Your task to perform on an android device: Open calendar and show me the fourth week of next month Image 0: 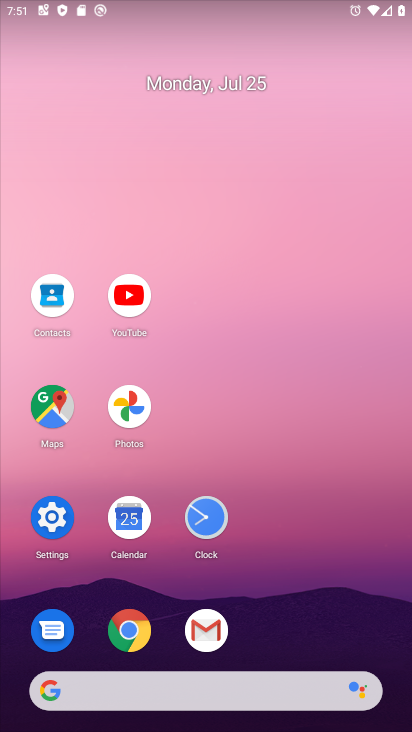
Step 0: click (126, 517)
Your task to perform on an android device: Open calendar and show me the fourth week of next month Image 1: 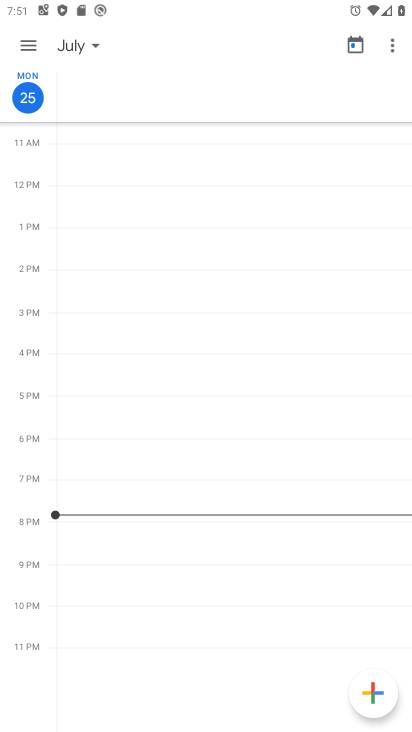
Step 1: click (31, 42)
Your task to perform on an android device: Open calendar and show me the fourth week of next month Image 2: 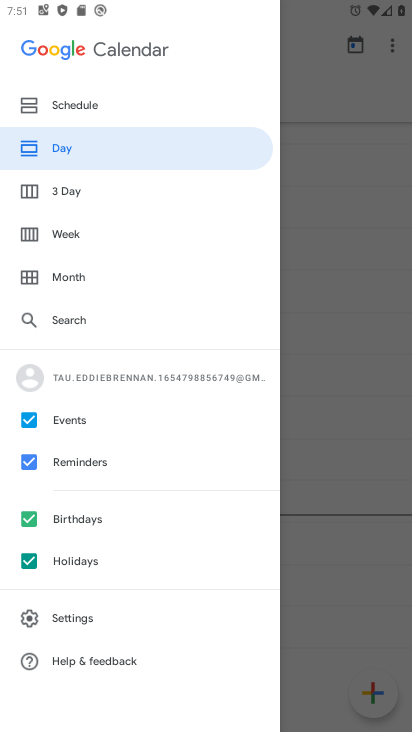
Step 2: click (60, 231)
Your task to perform on an android device: Open calendar and show me the fourth week of next month Image 3: 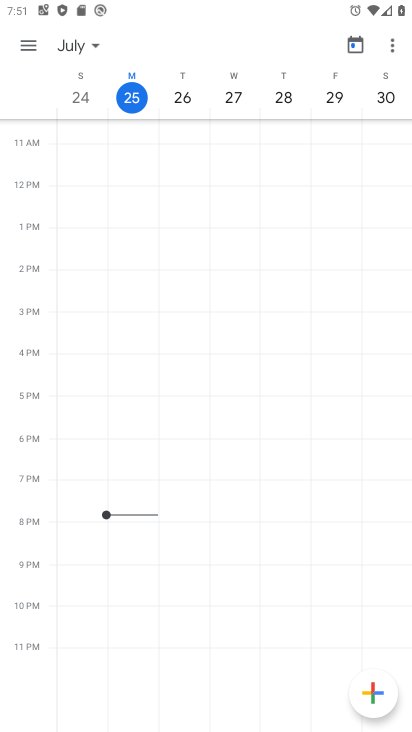
Step 3: click (100, 42)
Your task to perform on an android device: Open calendar and show me the fourth week of next month Image 4: 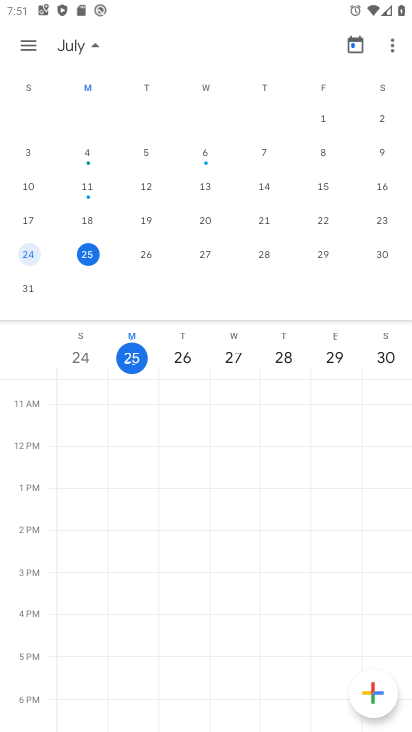
Step 4: drag from (342, 201) to (45, 157)
Your task to perform on an android device: Open calendar and show me the fourth week of next month Image 5: 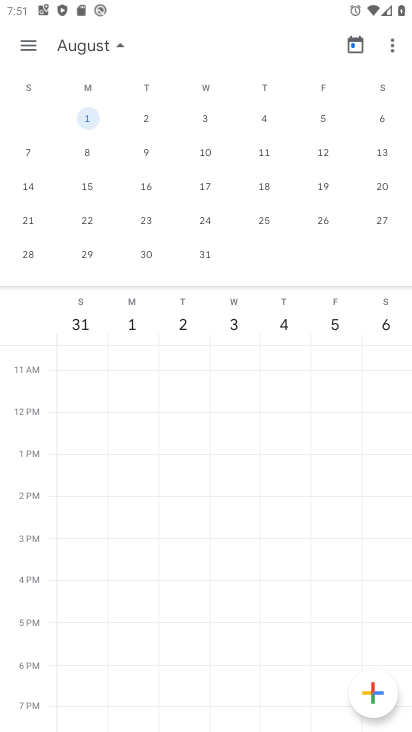
Step 5: click (82, 211)
Your task to perform on an android device: Open calendar and show me the fourth week of next month Image 6: 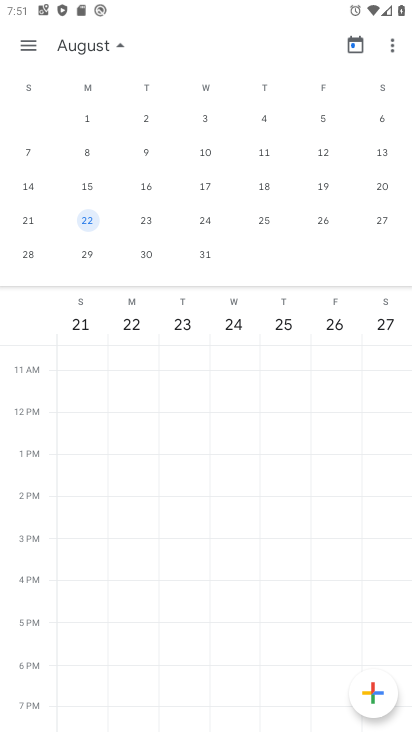
Step 6: task complete